Your task to perform on an android device: Go to privacy settings Image 0: 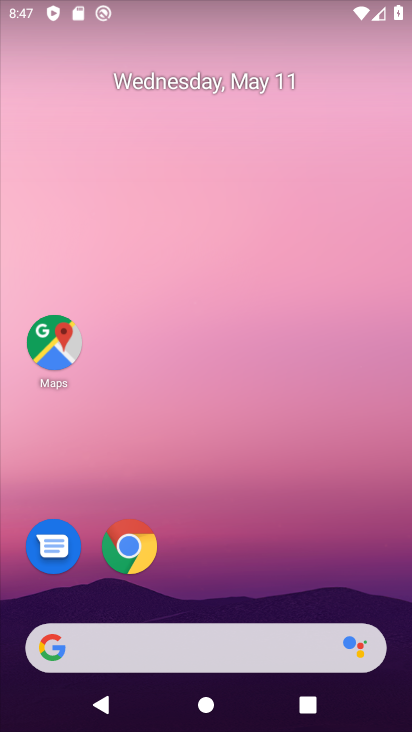
Step 0: drag from (338, 559) to (231, 81)
Your task to perform on an android device: Go to privacy settings Image 1: 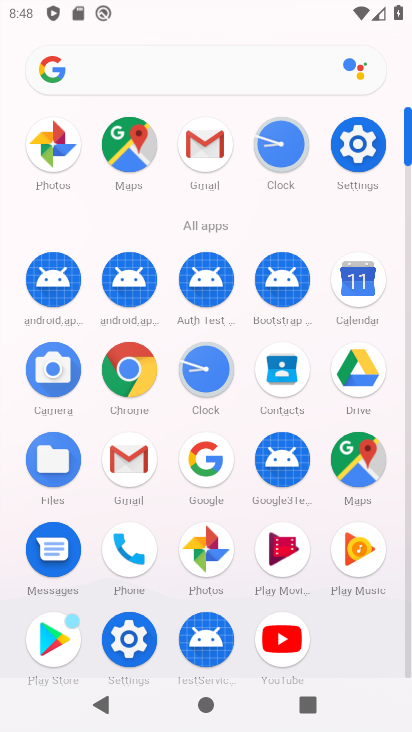
Step 1: click (352, 136)
Your task to perform on an android device: Go to privacy settings Image 2: 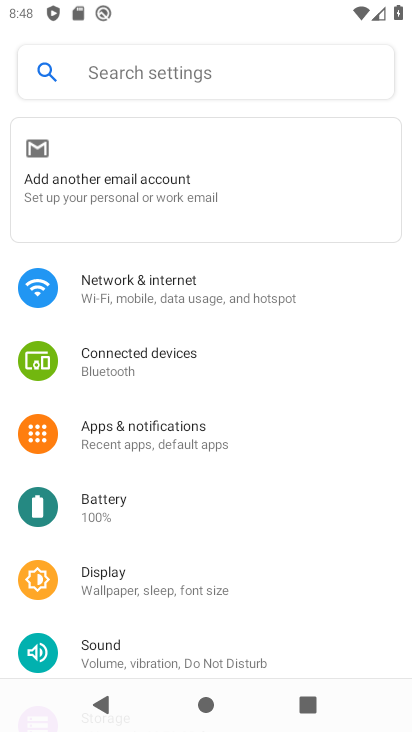
Step 2: drag from (185, 637) to (116, 431)
Your task to perform on an android device: Go to privacy settings Image 3: 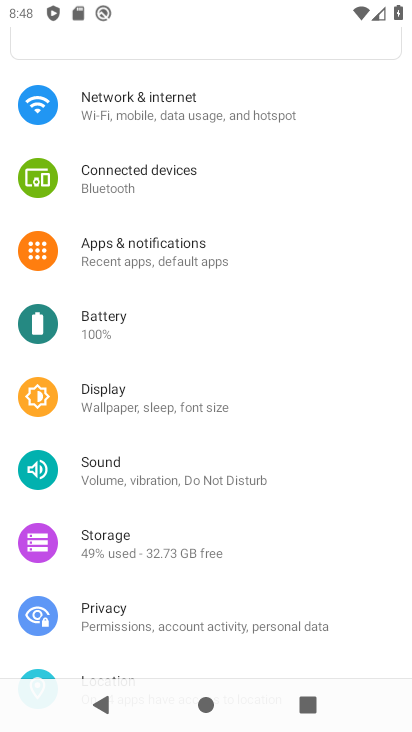
Step 3: click (133, 618)
Your task to perform on an android device: Go to privacy settings Image 4: 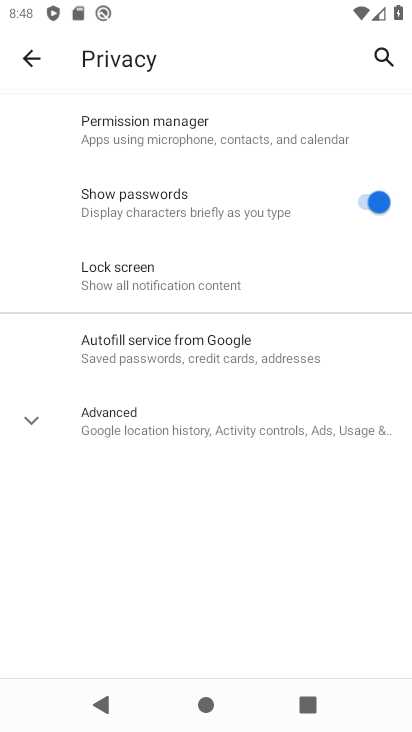
Step 4: task complete